Your task to perform on an android device: allow cookies in the chrome app Image 0: 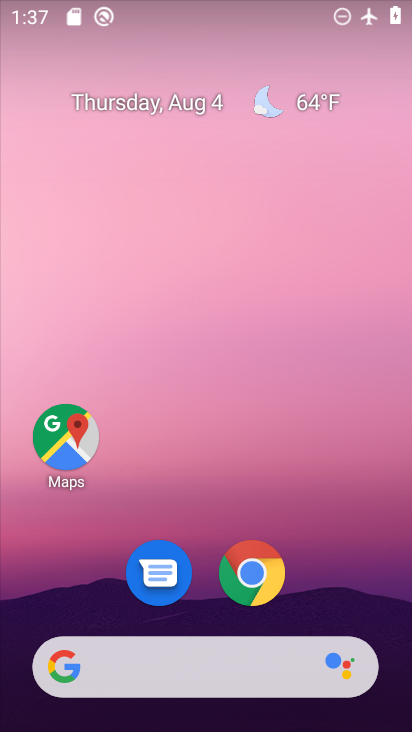
Step 0: drag from (338, 577) to (304, 41)
Your task to perform on an android device: allow cookies in the chrome app Image 1: 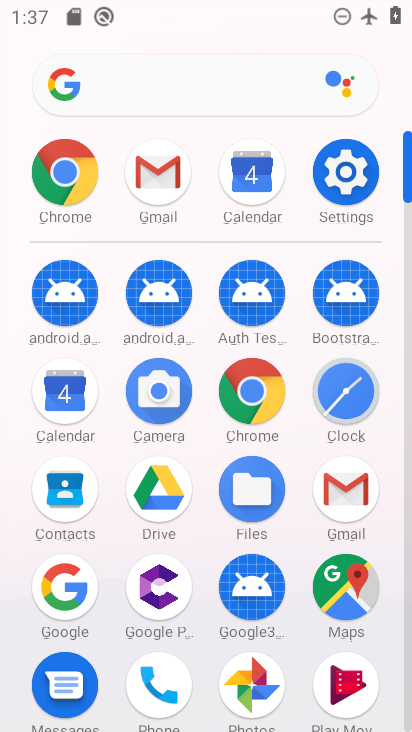
Step 1: click (256, 401)
Your task to perform on an android device: allow cookies in the chrome app Image 2: 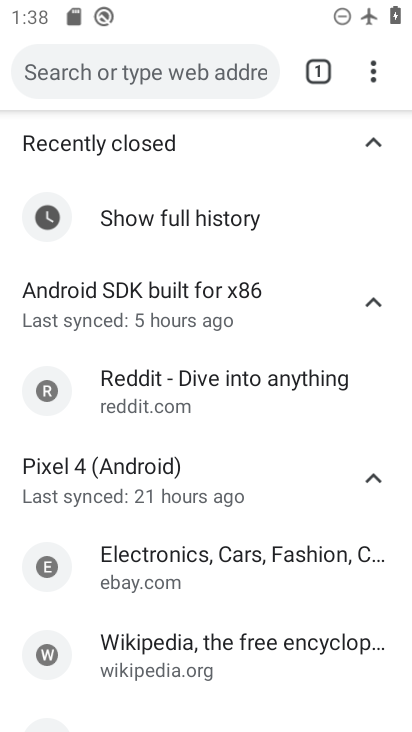
Step 2: drag from (369, 72) to (165, 574)
Your task to perform on an android device: allow cookies in the chrome app Image 3: 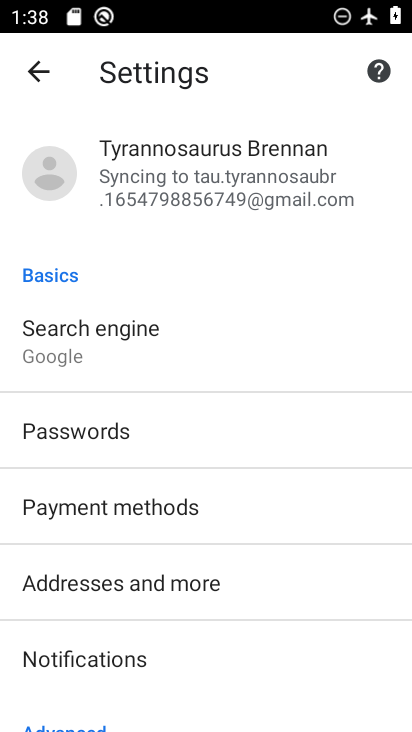
Step 3: drag from (193, 589) to (286, 68)
Your task to perform on an android device: allow cookies in the chrome app Image 4: 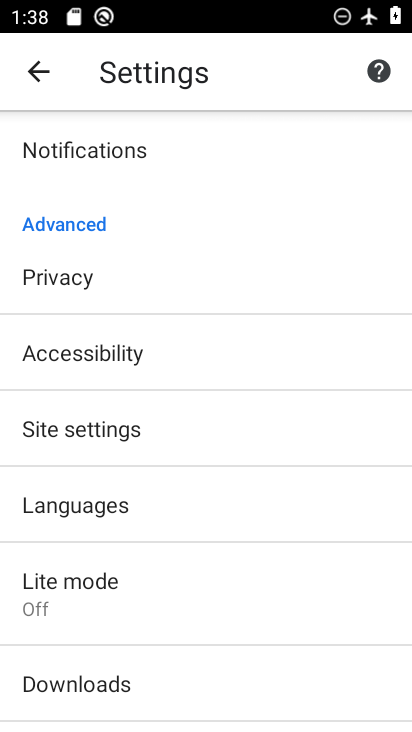
Step 4: click (160, 429)
Your task to perform on an android device: allow cookies in the chrome app Image 5: 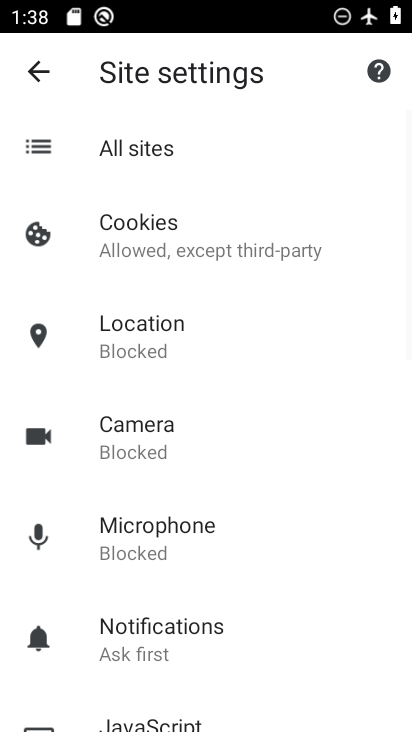
Step 5: drag from (228, 599) to (364, 171)
Your task to perform on an android device: allow cookies in the chrome app Image 6: 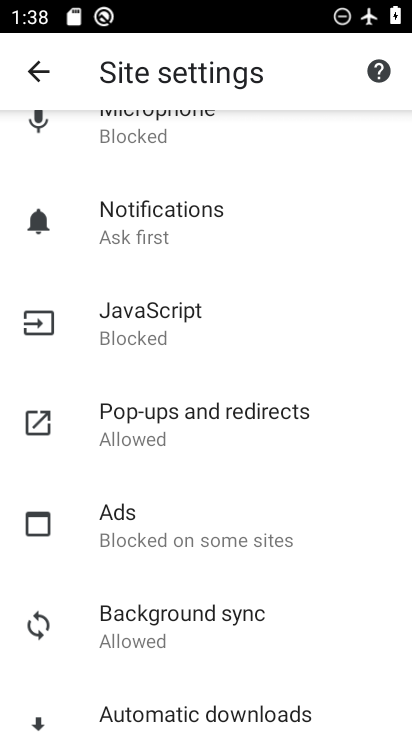
Step 6: drag from (208, 577) to (269, 639)
Your task to perform on an android device: allow cookies in the chrome app Image 7: 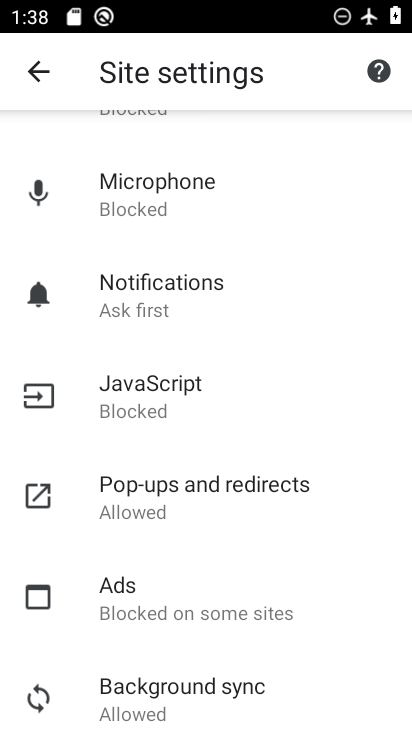
Step 7: drag from (276, 238) to (245, 569)
Your task to perform on an android device: allow cookies in the chrome app Image 8: 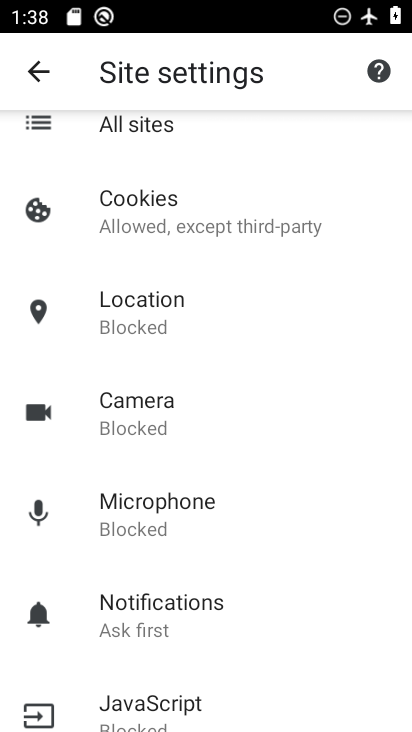
Step 8: click (164, 236)
Your task to perform on an android device: allow cookies in the chrome app Image 9: 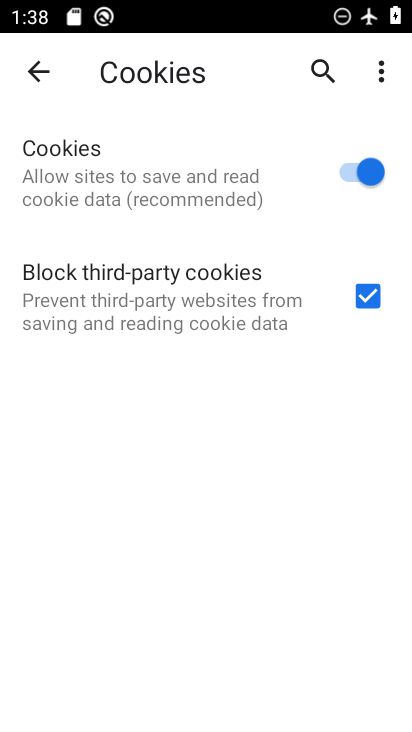
Step 9: task complete